Your task to perform on an android device: Go to accessibility settings Image 0: 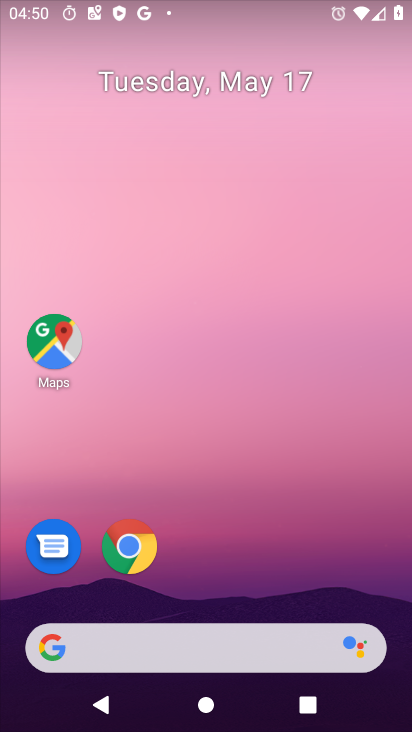
Step 0: click (367, 424)
Your task to perform on an android device: Go to accessibility settings Image 1: 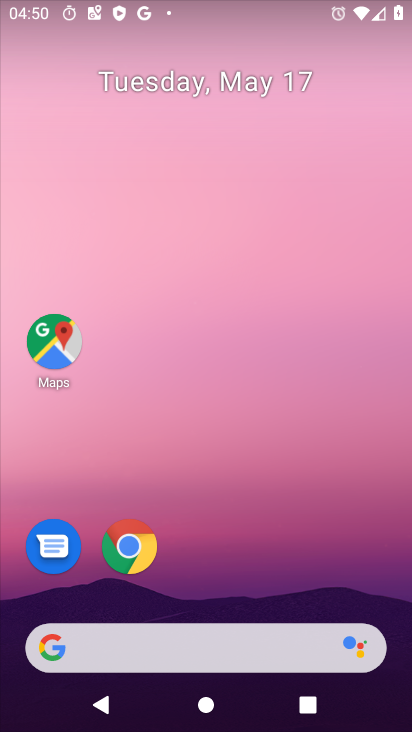
Step 1: drag from (399, 664) to (372, 462)
Your task to perform on an android device: Go to accessibility settings Image 2: 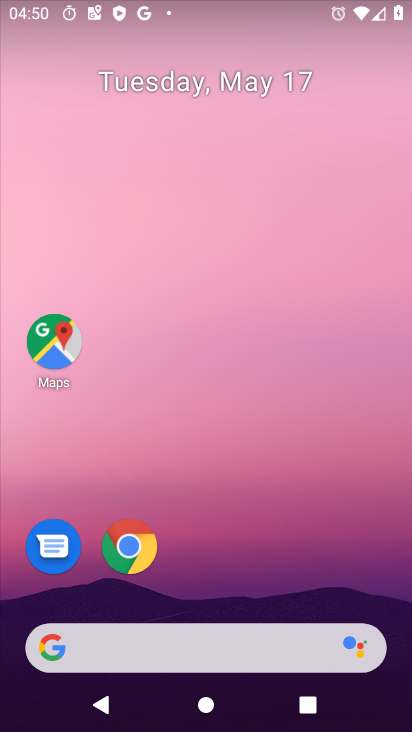
Step 2: drag from (392, 624) to (365, 275)
Your task to perform on an android device: Go to accessibility settings Image 3: 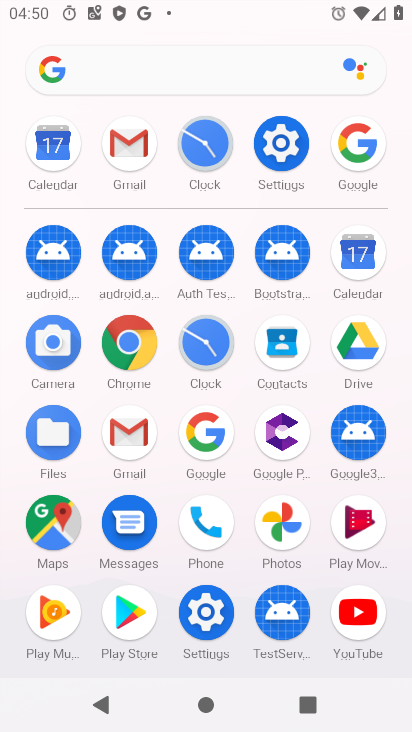
Step 3: click (291, 142)
Your task to perform on an android device: Go to accessibility settings Image 4: 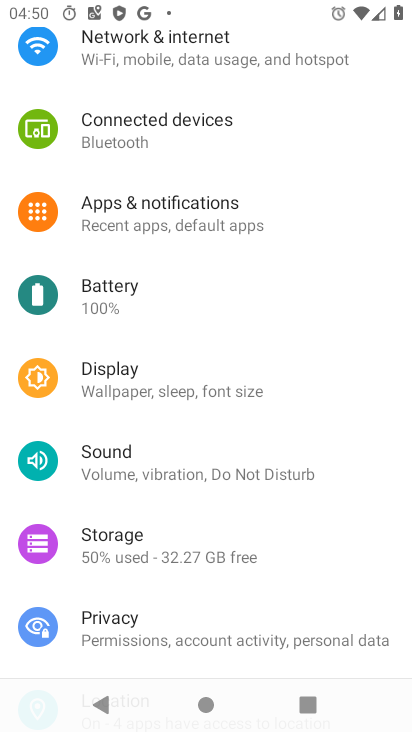
Step 4: drag from (361, 531) to (341, 380)
Your task to perform on an android device: Go to accessibility settings Image 5: 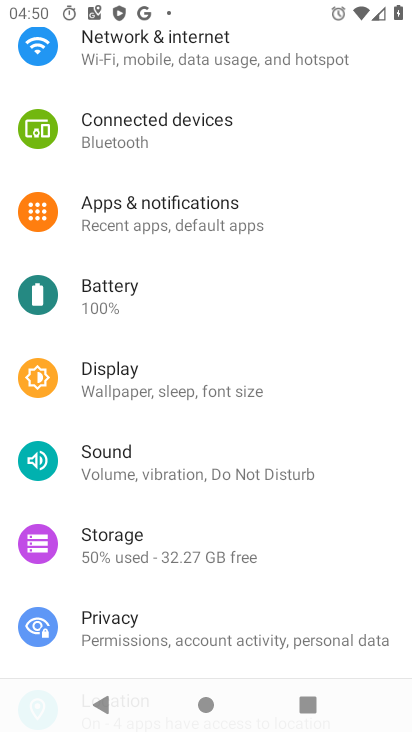
Step 5: drag from (383, 595) to (364, 360)
Your task to perform on an android device: Go to accessibility settings Image 6: 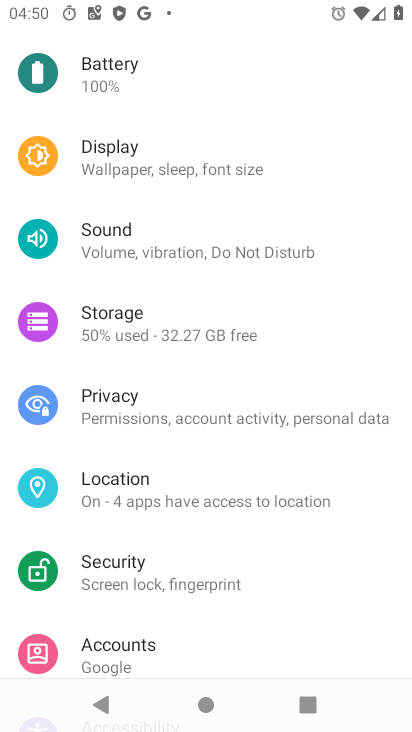
Step 6: drag from (345, 608) to (351, 347)
Your task to perform on an android device: Go to accessibility settings Image 7: 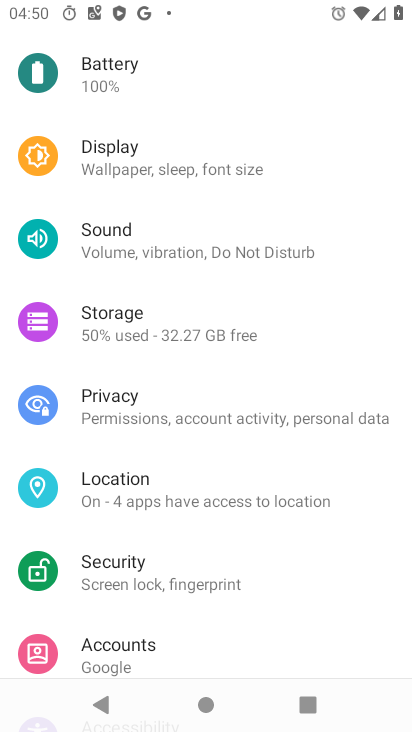
Step 7: drag from (366, 639) to (367, 347)
Your task to perform on an android device: Go to accessibility settings Image 8: 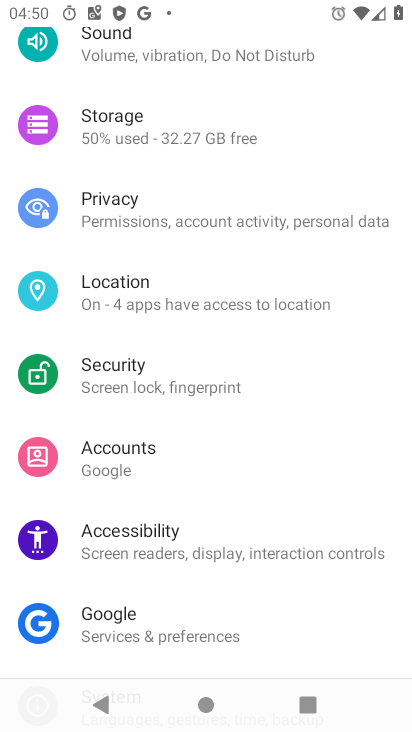
Step 8: click (110, 535)
Your task to perform on an android device: Go to accessibility settings Image 9: 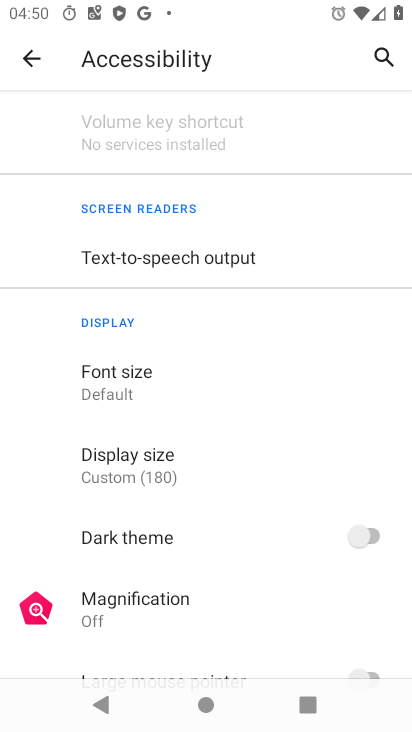
Step 9: task complete